Your task to perform on an android device: make emails show in primary in the gmail app Image 0: 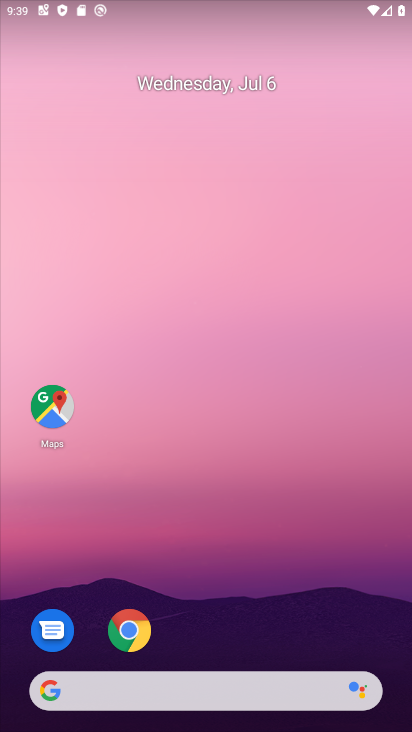
Step 0: drag from (377, 631) to (334, 135)
Your task to perform on an android device: make emails show in primary in the gmail app Image 1: 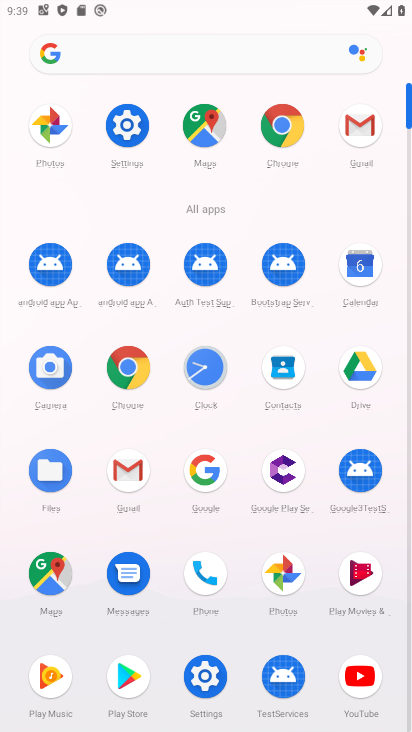
Step 1: click (128, 469)
Your task to perform on an android device: make emails show in primary in the gmail app Image 2: 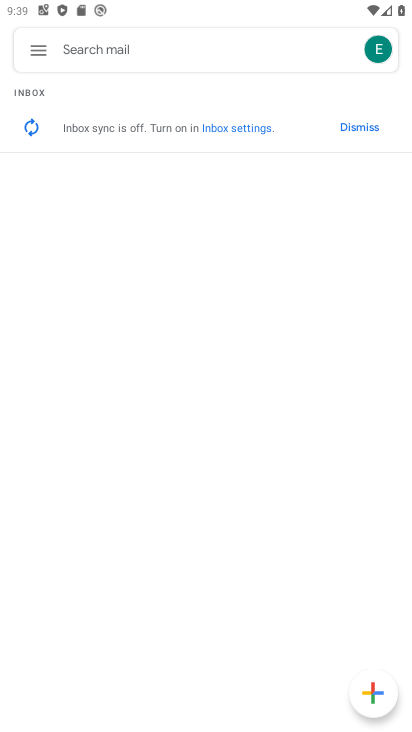
Step 2: click (36, 50)
Your task to perform on an android device: make emails show in primary in the gmail app Image 3: 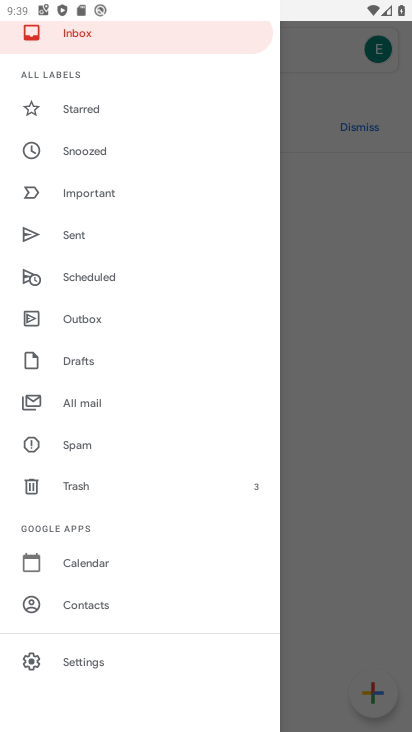
Step 3: drag from (208, 169) to (202, 97)
Your task to perform on an android device: make emails show in primary in the gmail app Image 4: 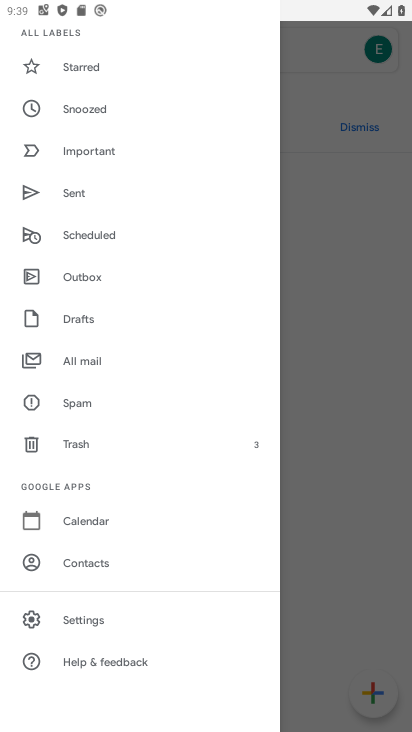
Step 4: click (84, 615)
Your task to perform on an android device: make emails show in primary in the gmail app Image 5: 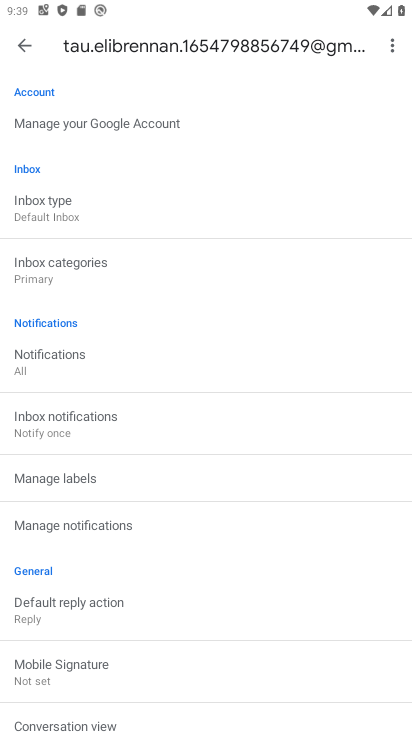
Step 5: click (46, 208)
Your task to perform on an android device: make emails show in primary in the gmail app Image 6: 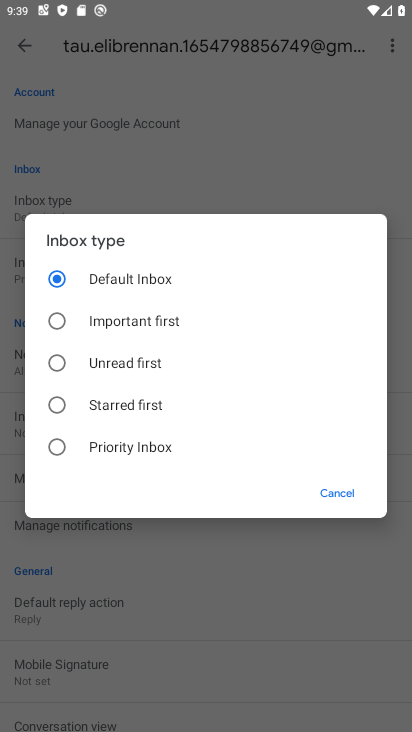
Step 6: click (346, 501)
Your task to perform on an android device: make emails show in primary in the gmail app Image 7: 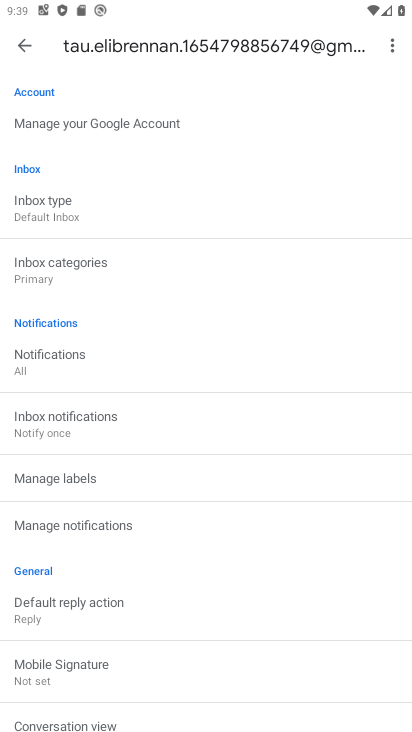
Step 7: click (33, 272)
Your task to perform on an android device: make emails show in primary in the gmail app Image 8: 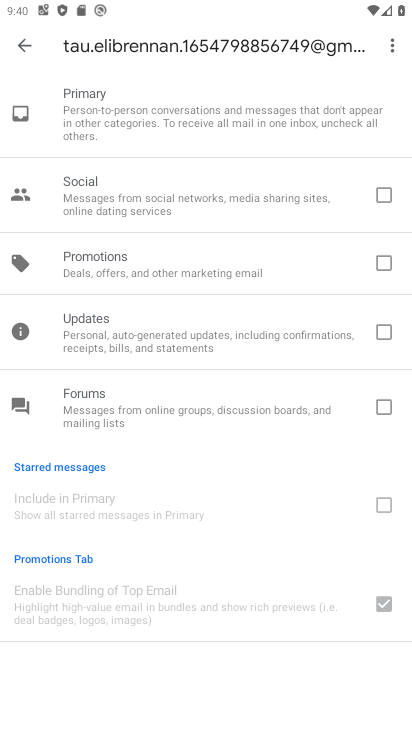
Step 8: task complete